Your task to perform on an android device: Go to Reddit.com Image 0: 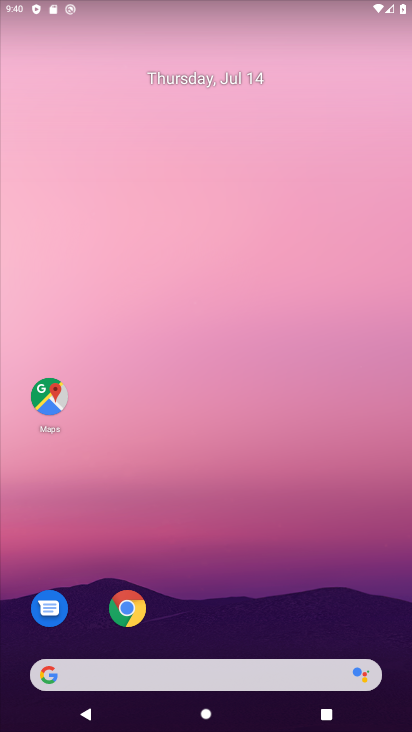
Step 0: click (133, 602)
Your task to perform on an android device: Go to Reddit.com Image 1: 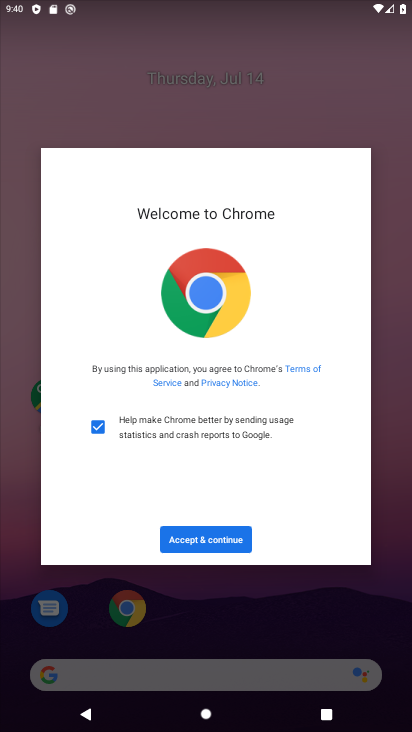
Step 1: click (218, 532)
Your task to perform on an android device: Go to Reddit.com Image 2: 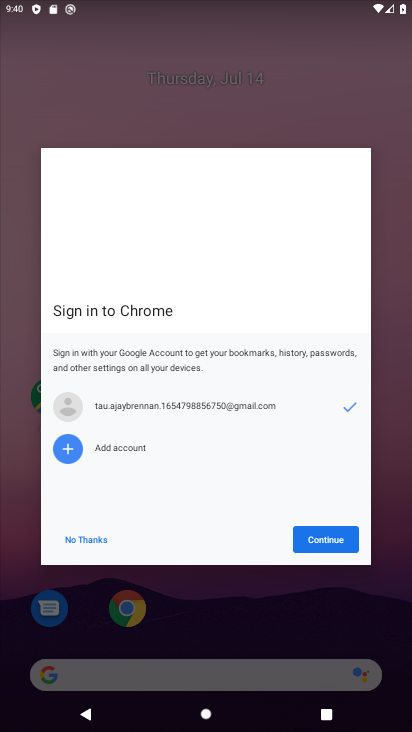
Step 2: click (326, 536)
Your task to perform on an android device: Go to Reddit.com Image 3: 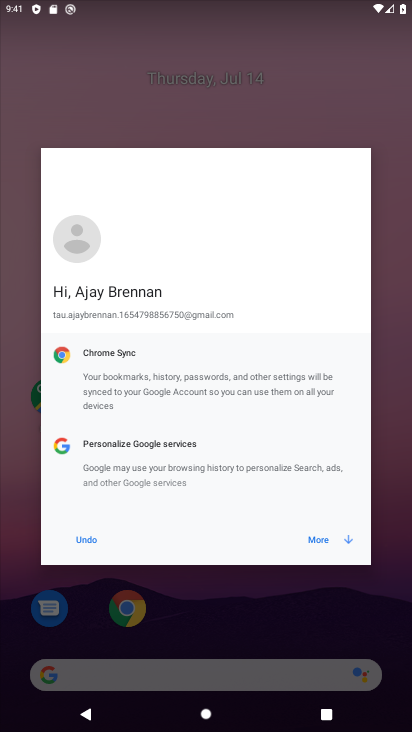
Step 3: click (355, 540)
Your task to perform on an android device: Go to Reddit.com Image 4: 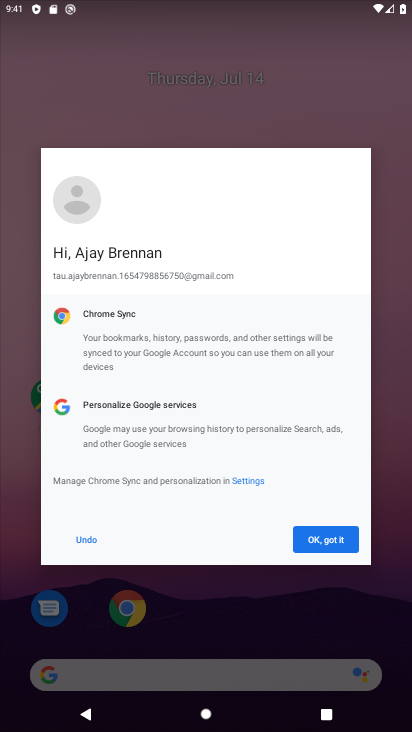
Step 4: click (337, 540)
Your task to perform on an android device: Go to Reddit.com Image 5: 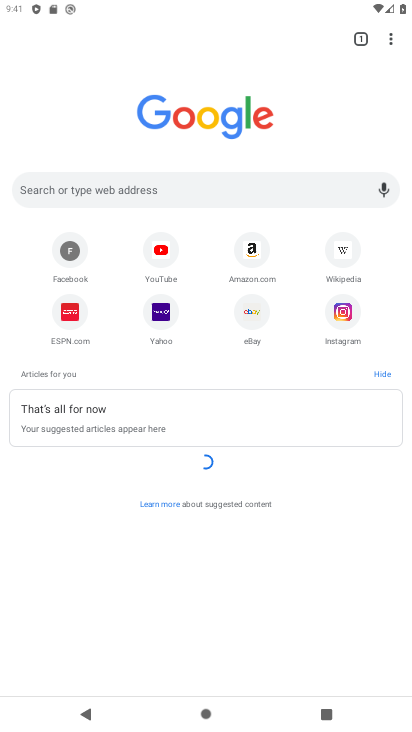
Step 5: click (258, 178)
Your task to perform on an android device: Go to Reddit.com Image 6: 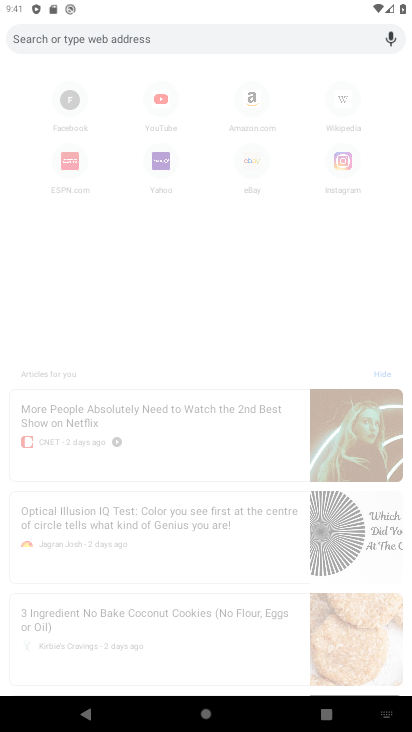
Step 6: type "Reddit.com"
Your task to perform on an android device: Go to Reddit.com Image 7: 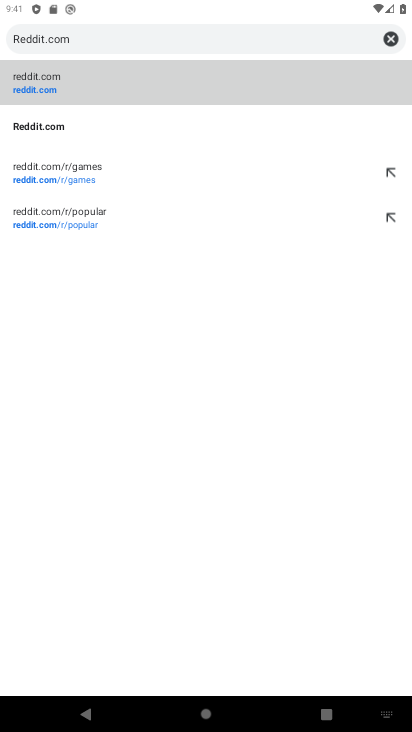
Step 7: click (241, 82)
Your task to perform on an android device: Go to Reddit.com Image 8: 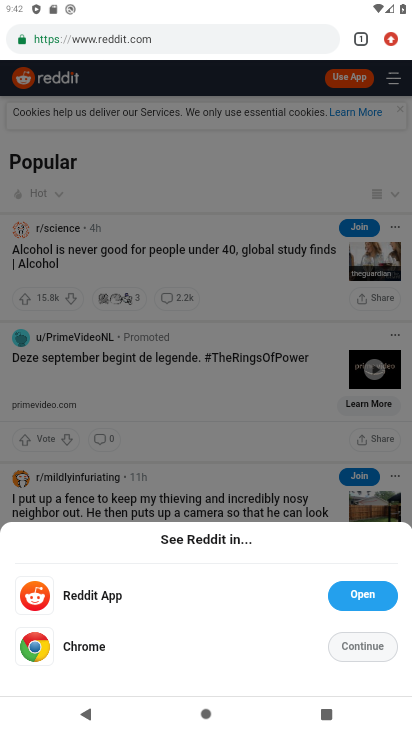
Step 8: task complete